Your task to perform on an android device: manage bookmarks in the chrome app Image 0: 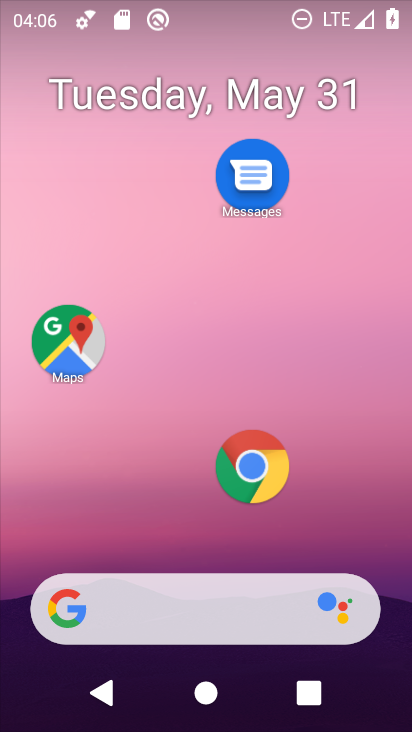
Step 0: click (256, 464)
Your task to perform on an android device: manage bookmarks in the chrome app Image 1: 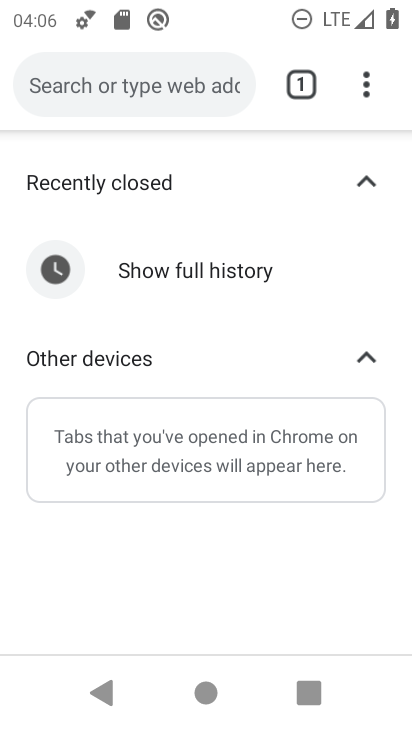
Step 1: task complete